Your task to perform on an android device: toggle improve location accuracy Image 0: 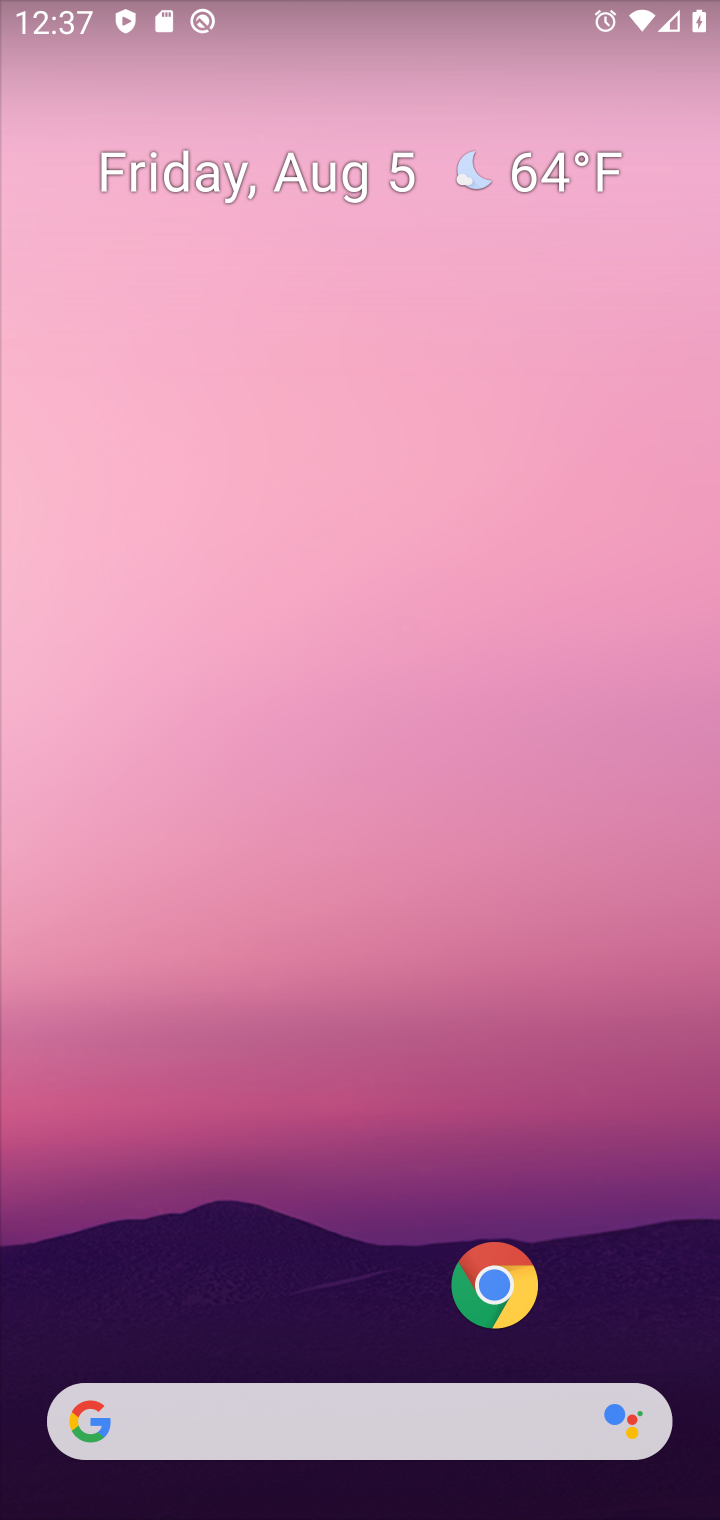
Step 0: press home button
Your task to perform on an android device: toggle improve location accuracy Image 1: 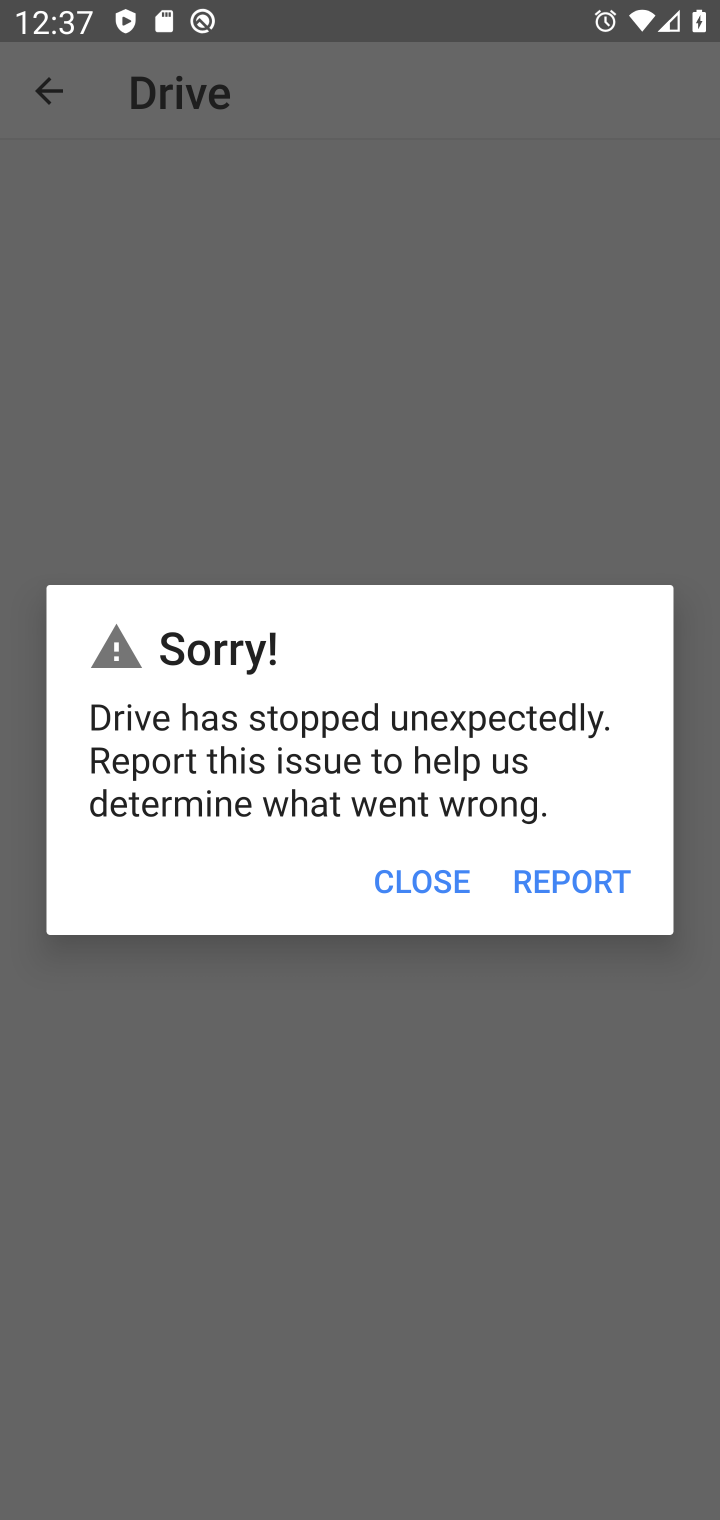
Step 1: click (531, 524)
Your task to perform on an android device: toggle improve location accuracy Image 2: 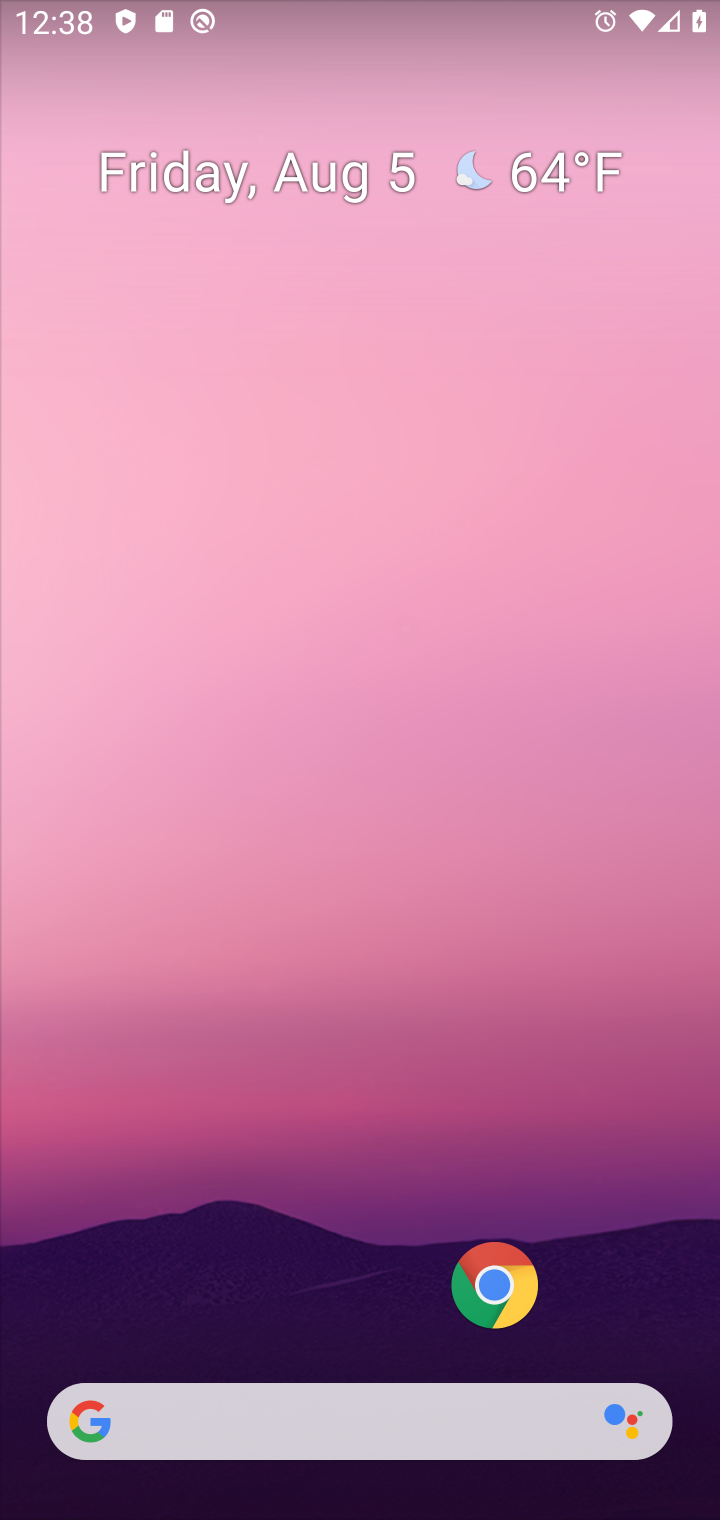
Step 2: drag from (152, 1348) to (401, 239)
Your task to perform on an android device: toggle improve location accuracy Image 3: 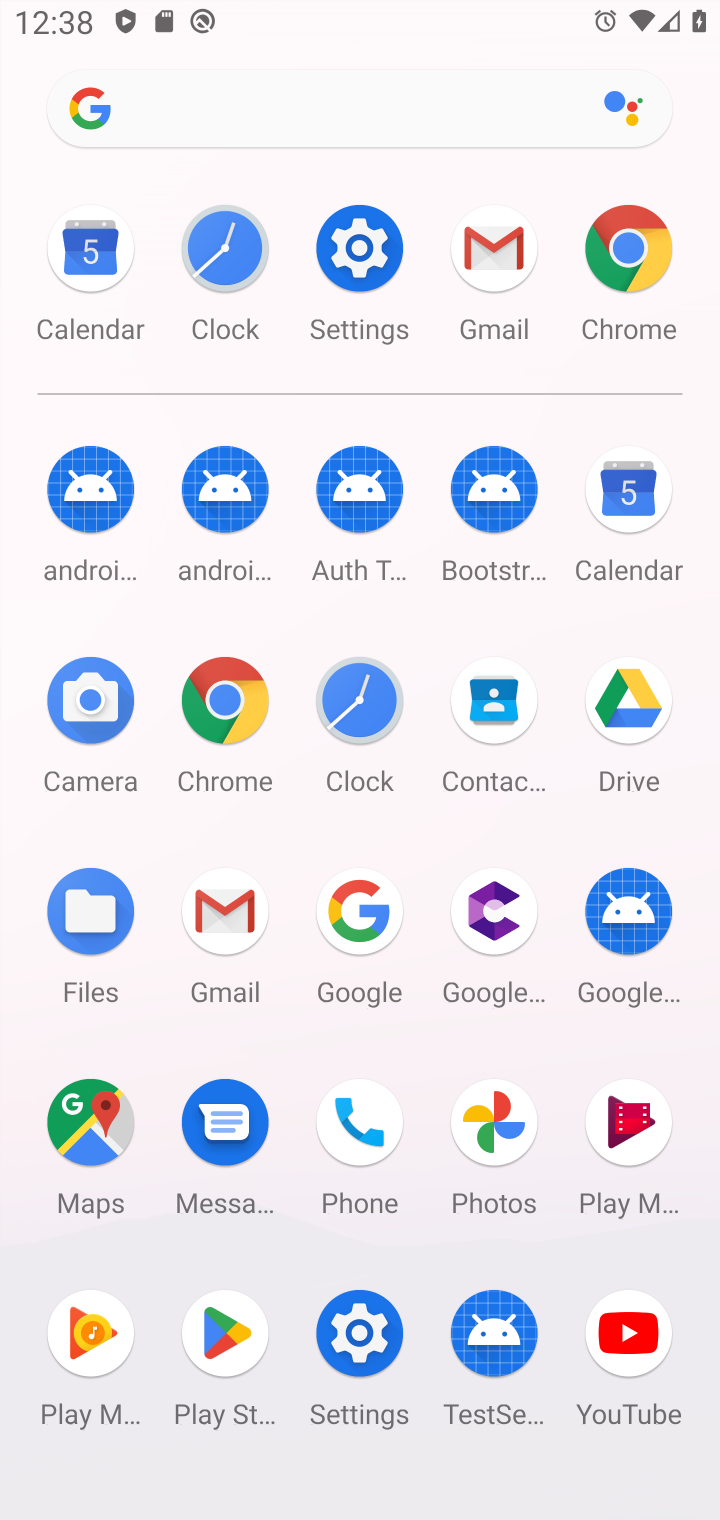
Step 3: click (373, 273)
Your task to perform on an android device: toggle improve location accuracy Image 4: 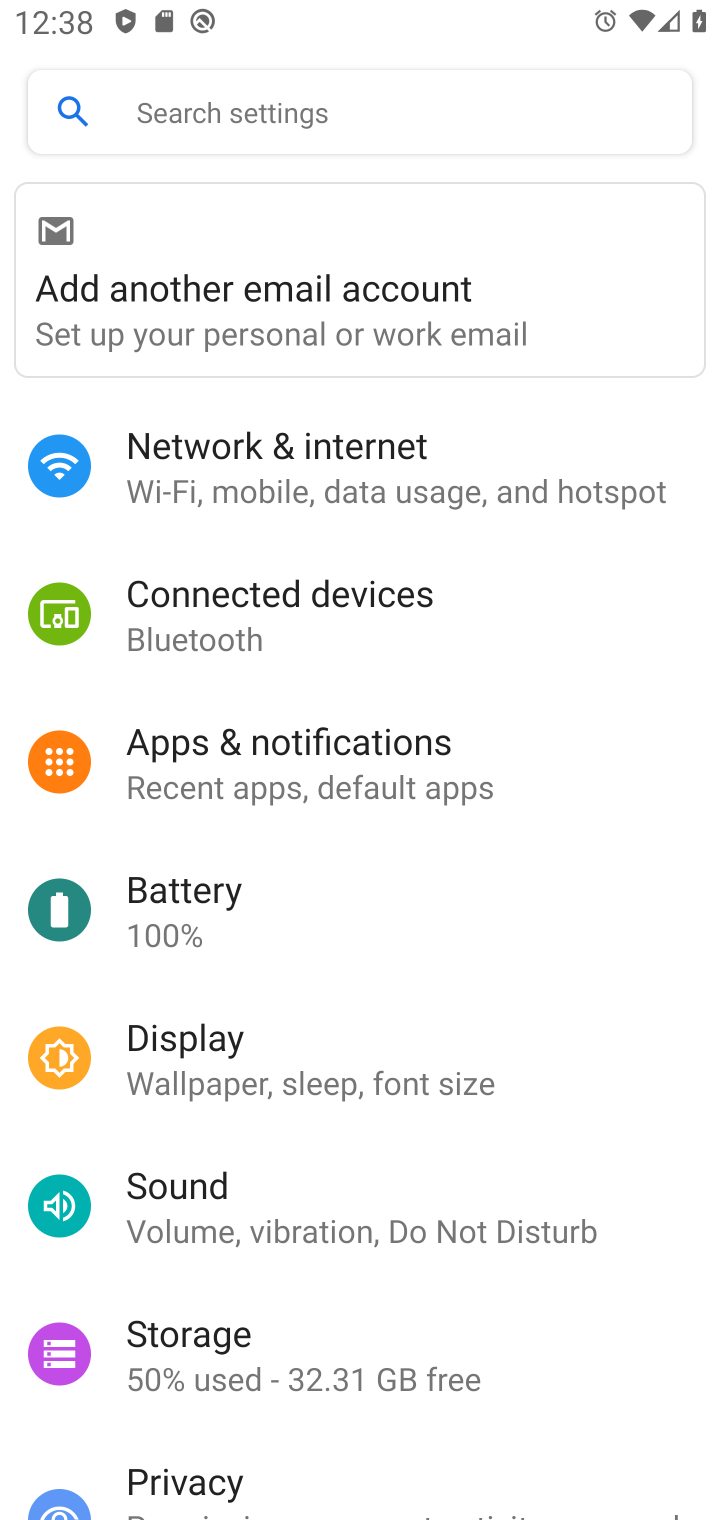
Step 4: drag from (328, 1297) to (347, 250)
Your task to perform on an android device: toggle improve location accuracy Image 5: 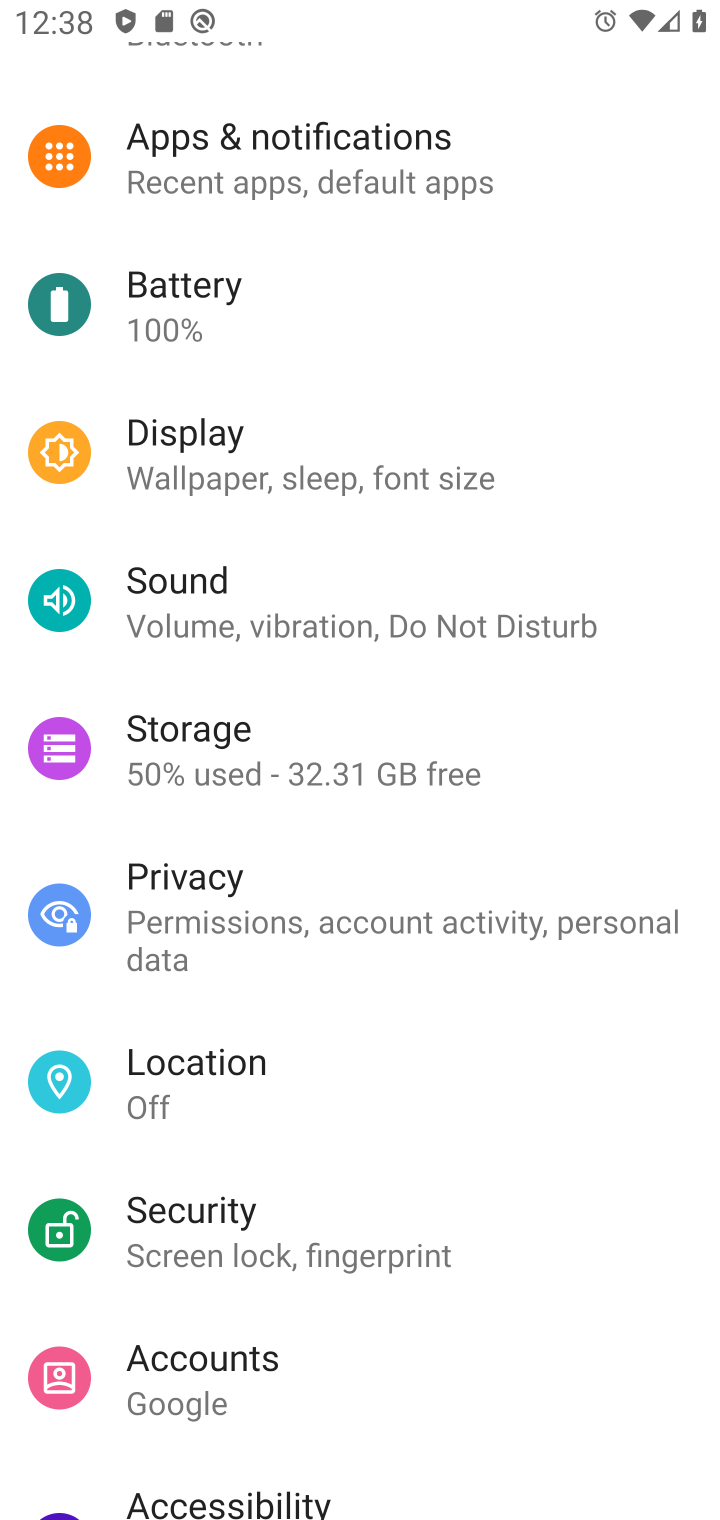
Step 5: click (190, 1083)
Your task to perform on an android device: toggle improve location accuracy Image 6: 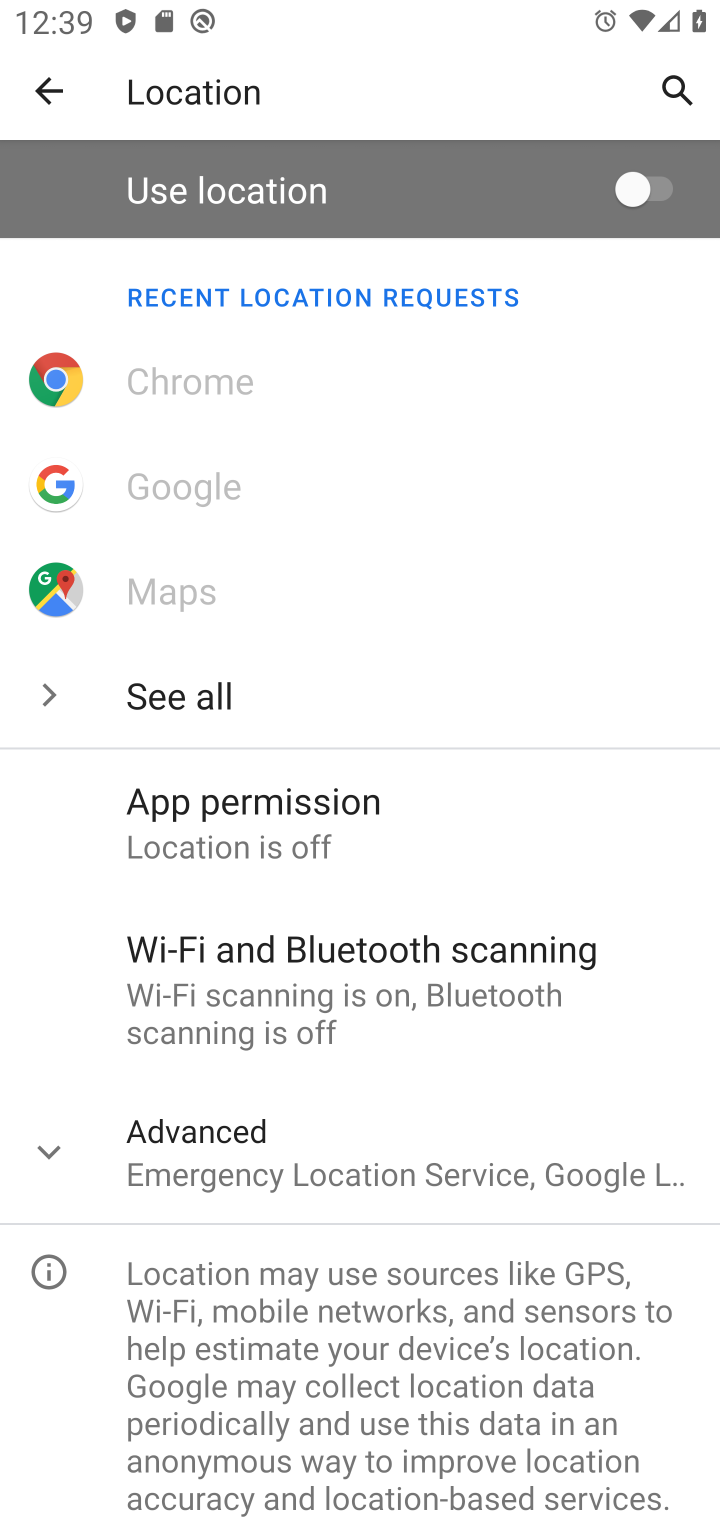
Step 6: click (300, 1172)
Your task to perform on an android device: toggle improve location accuracy Image 7: 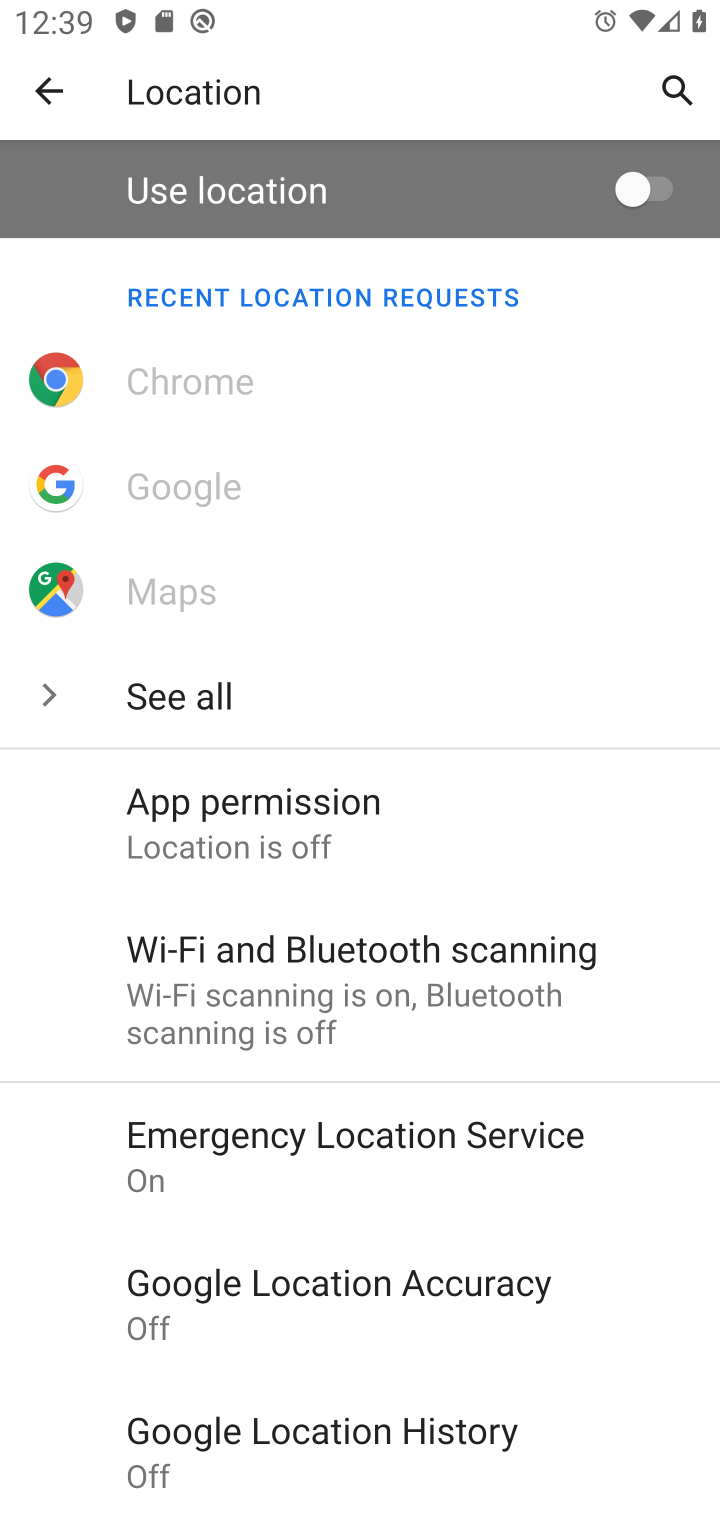
Step 7: drag from (306, 1155) to (503, 1519)
Your task to perform on an android device: toggle improve location accuracy Image 8: 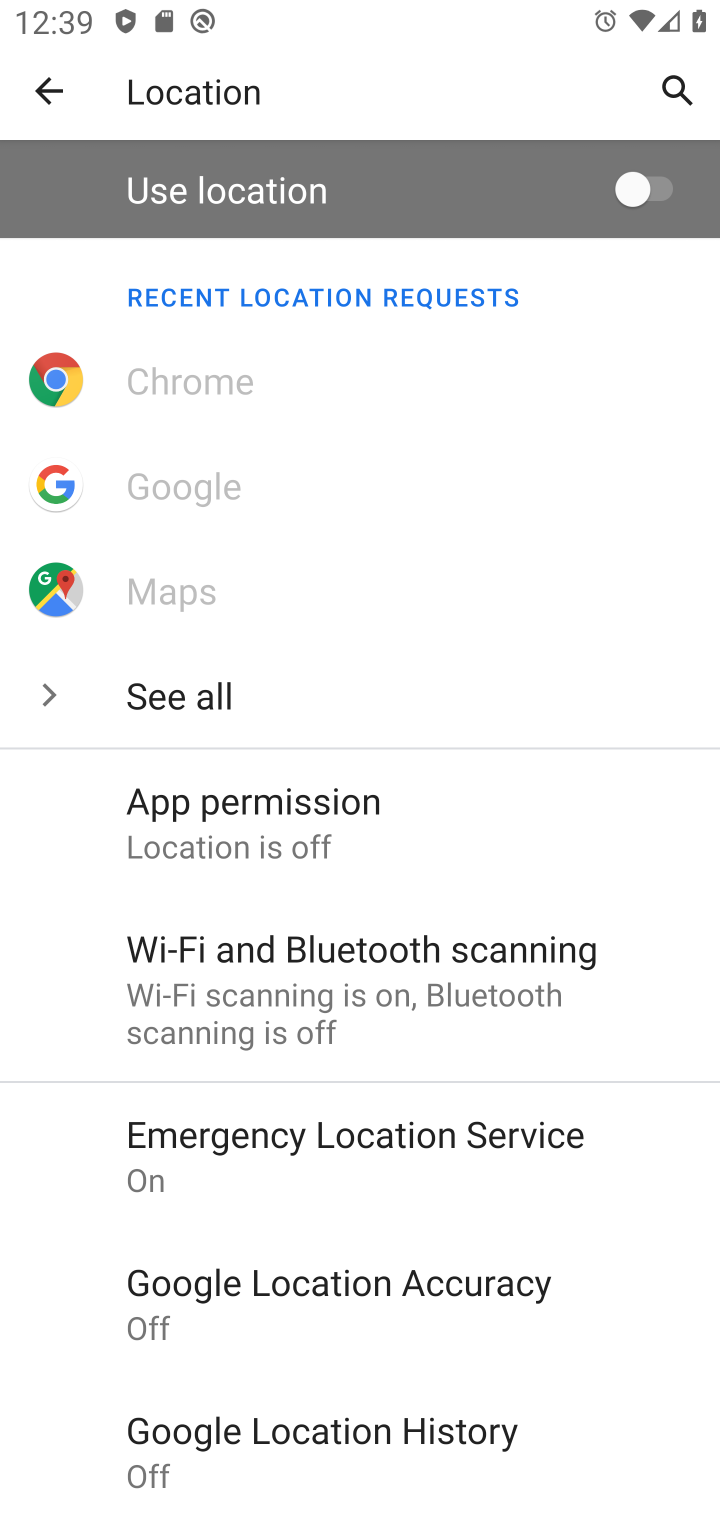
Step 8: click (427, 1246)
Your task to perform on an android device: toggle improve location accuracy Image 9: 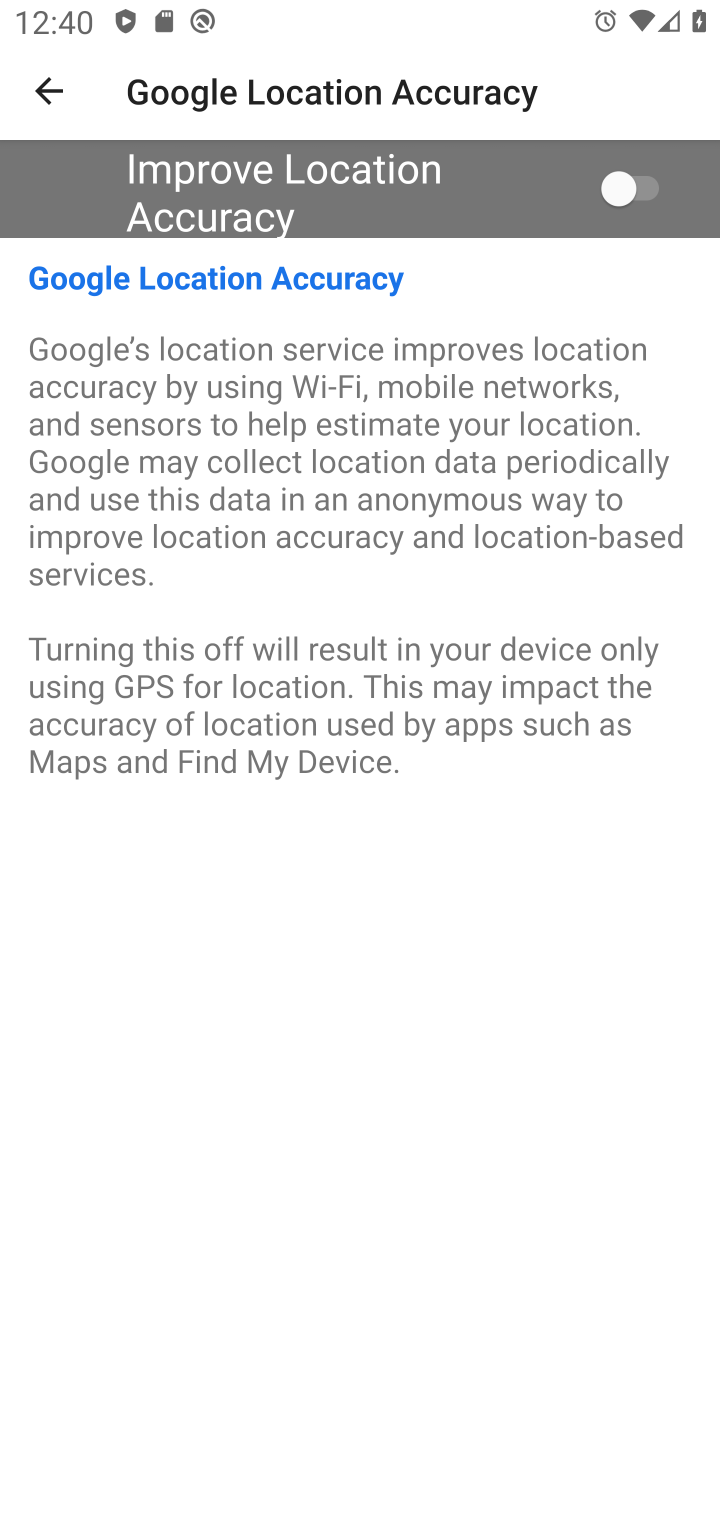
Step 9: click (400, 160)
Your task to perform on an android device: toggle improve location accuracy Image 10: 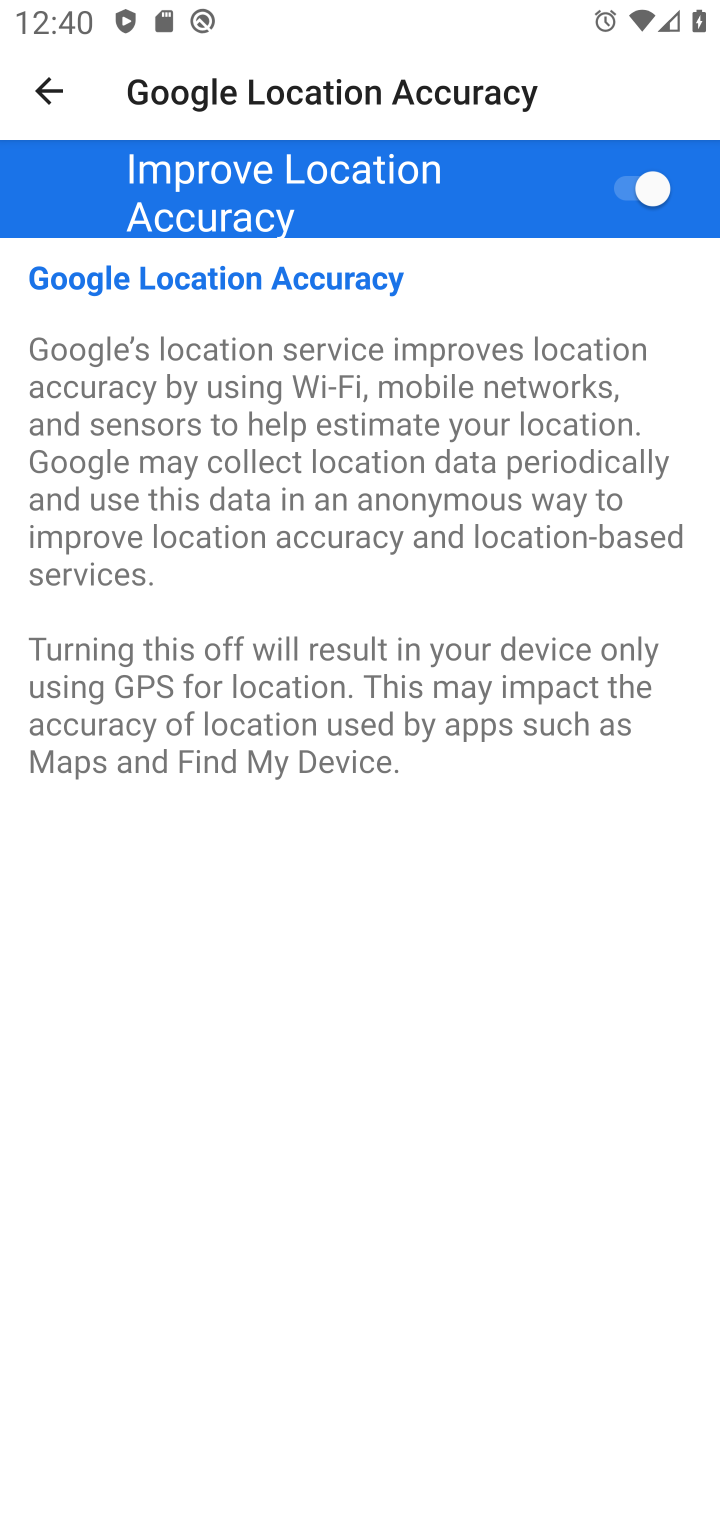
Step 10: task complete